Your task to perform on an android device: turn on airplane mode Image 0: 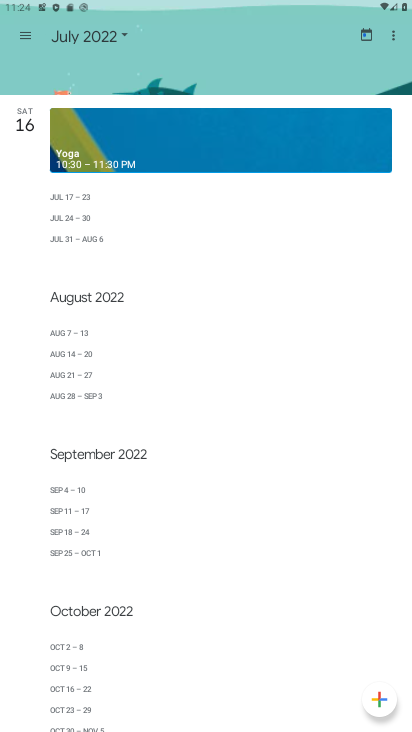
Step 0: press home button
Your task to perform on an android device: turn on airplane mode Image 1: 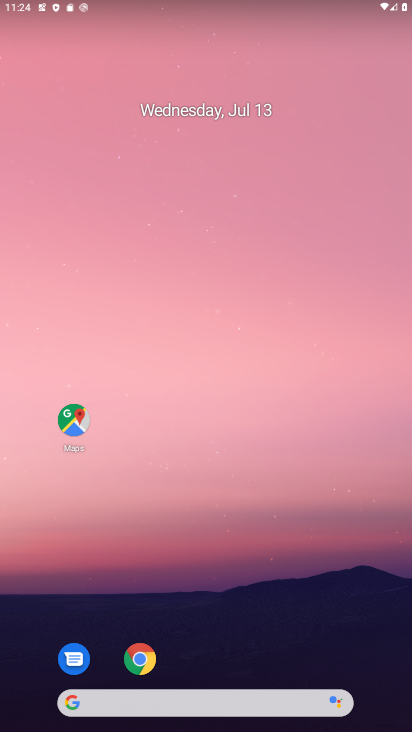
Step 1: drag from (364, 623) to (304, 104)
Your task to perform on an android device: turn on airplane mode Image 2: 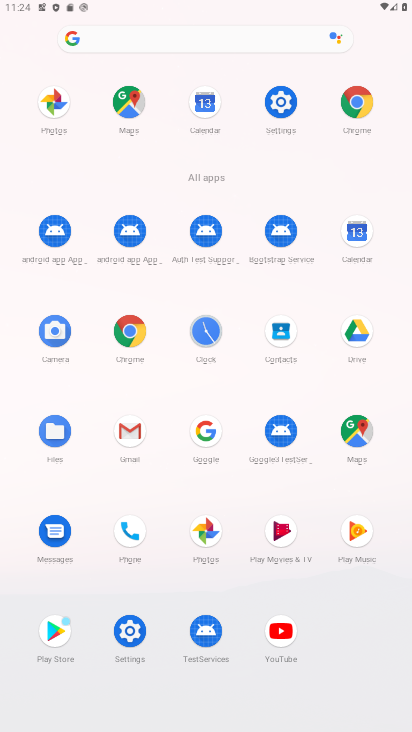
Step 2: click (272, 109)
Your task to perform on an android device: turn on airplane mode Image 3: 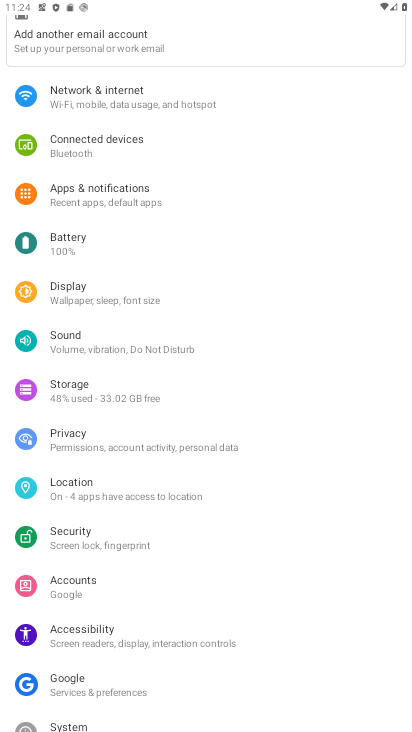
Step 3: click (210, 69)
Your task to perform on an android device: turn on airplane mode Image 4: 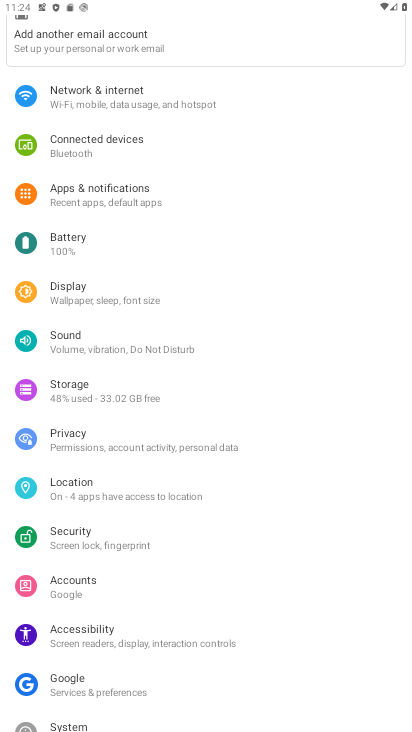
Step 4: click (203, 107)
Your task to perform on an android device: turn on airplane mode Image 5: 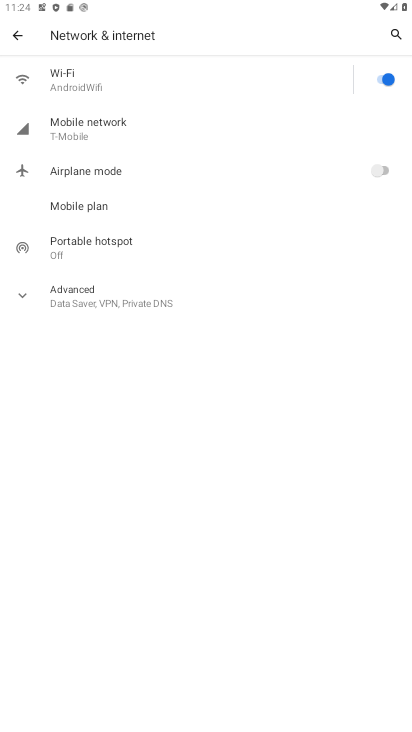
Step 5: click (378, 171)
Your task to perform on an android device: turn on airplane mode Image 6: 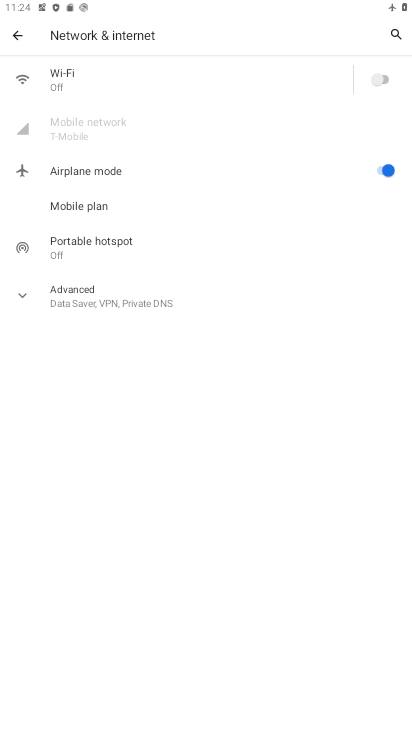
Step 6: task complete